Your task to perform on an android device: Show the shopping cart on bestbuy. Image 0: 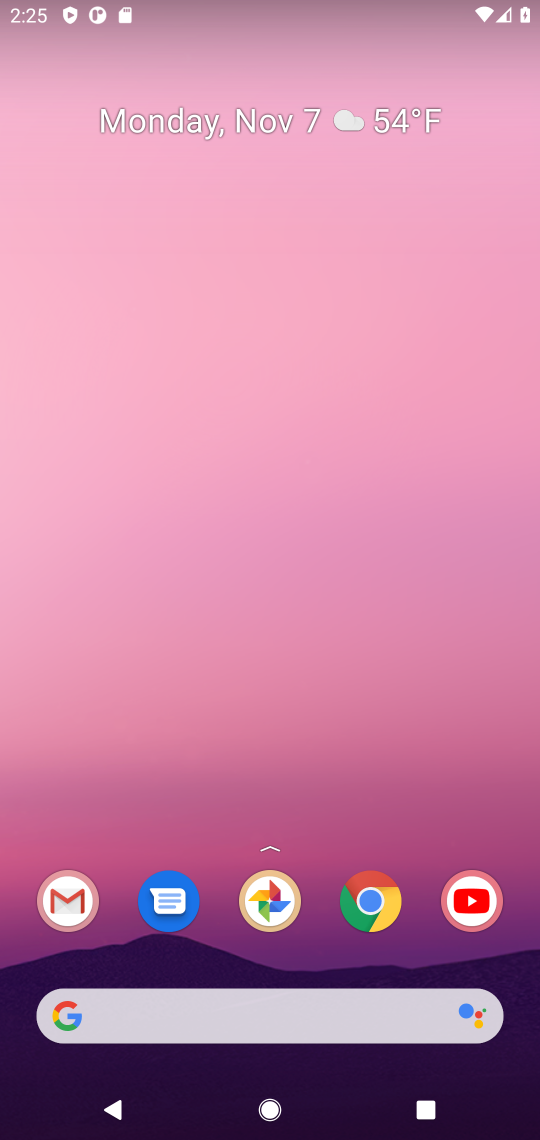
Step 0: click (360, 907)
Your task to perform on an android device: Show the shopping cart on bestbuy. Image 1: 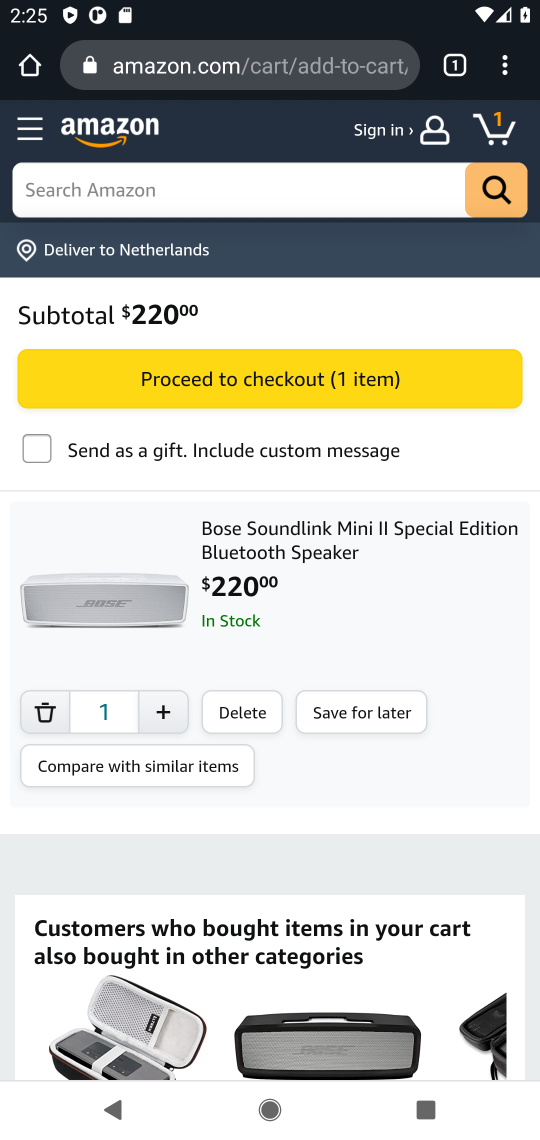
Step 1: click (245, 74)
Your task to perform on an android device: Show the shopping cart on bestbuy. Image 2: 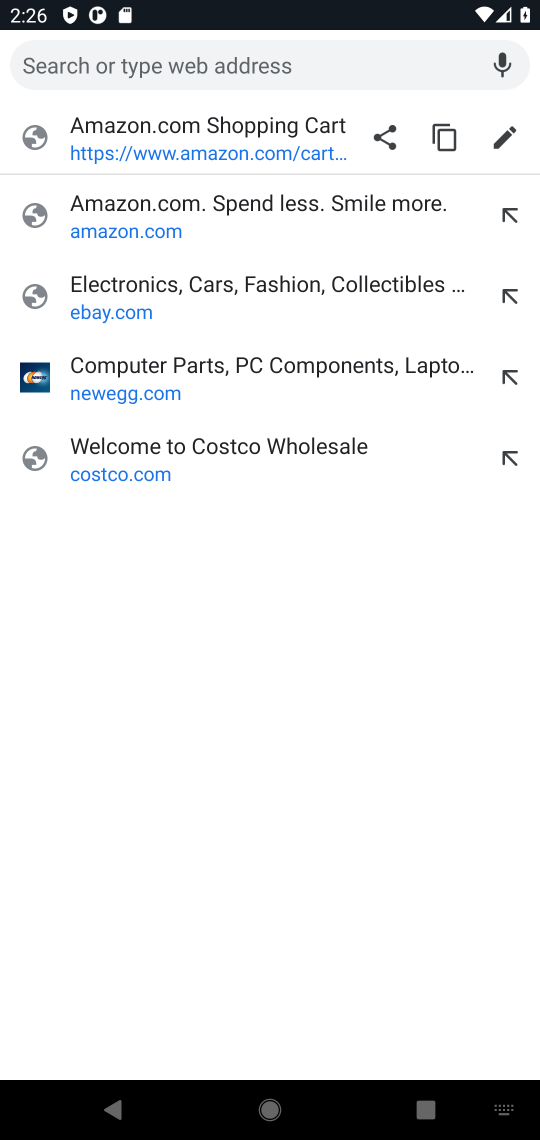
Step 2: type "bestbuy.com"
Your task to perform on an android device: Show the shopping cart on bestbuy. Image 3: 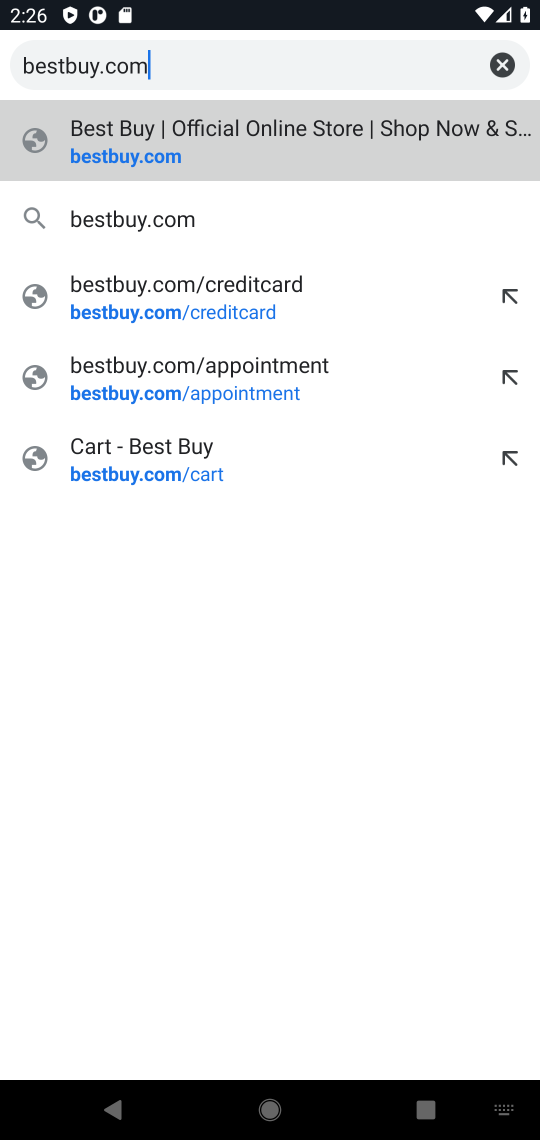
Step 3: click (162, 165)
Your task to perform on an android device: Show the shopping cart on bestbuy. Image 4: 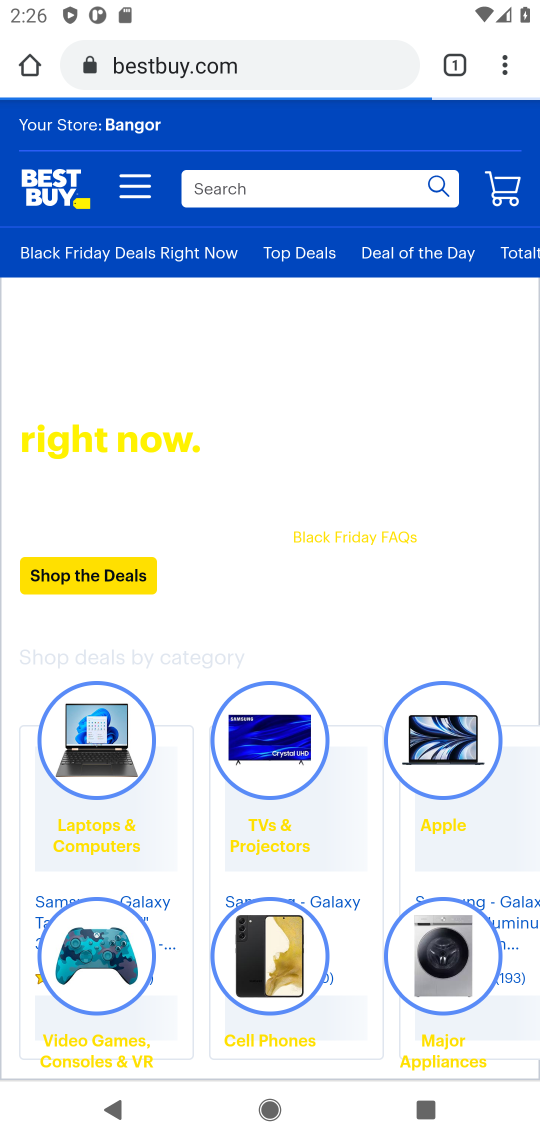
Step 4: click (503, 202)
Your task to perform on an android device: Show the shopping cart on bestbuy. Image 5: 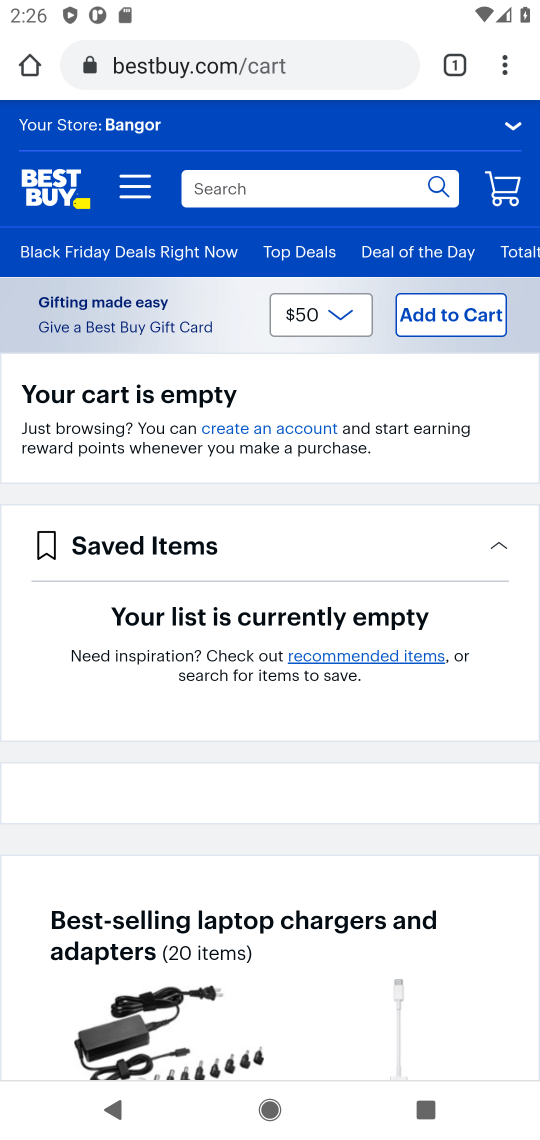
Step 5: task complete